Your task to perform on an android device: all mails in gmail Image 0: 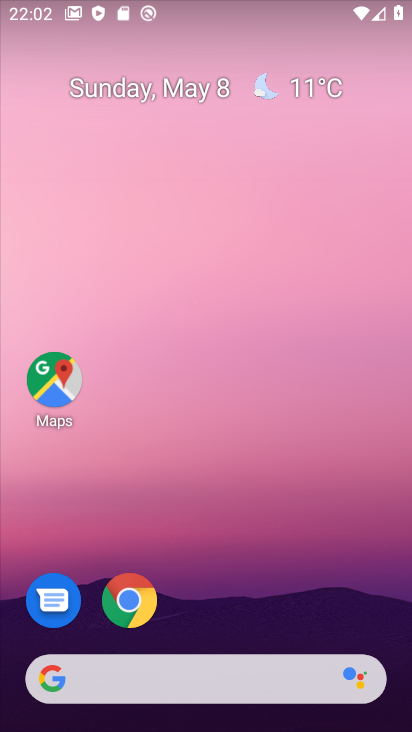
Step 0: drag from (187, 638) to (256, 7)
Your task to perform on an android device: all mails in gmail Image 1: 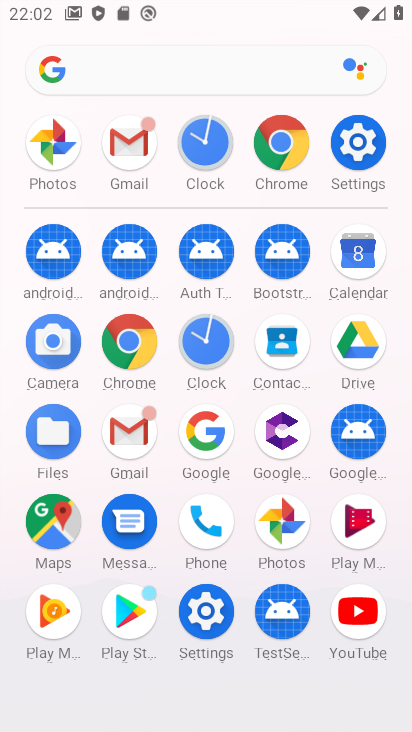
Step 1: click (129, 160)
Your task to perform on an android device: all mails in gmail Image 2: 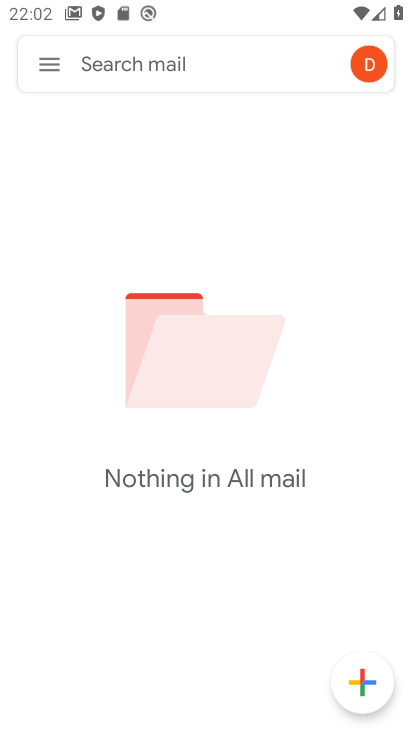
Step 2: task complete